Your task to perform on an android device: Go to settings Image 0: 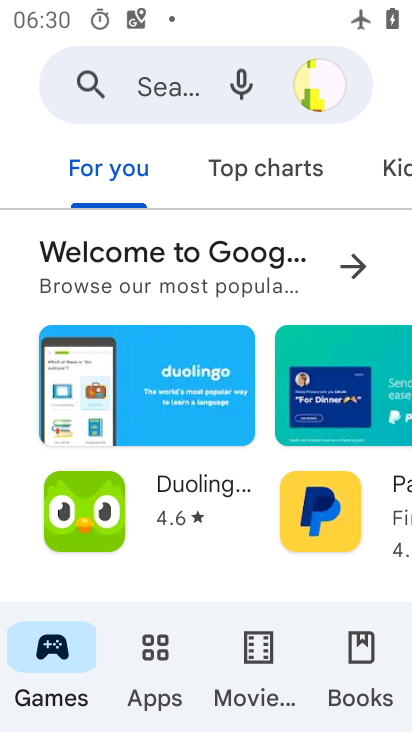
Step 0: press home button
Your task to perform on an android device: Go to settings Image 1: 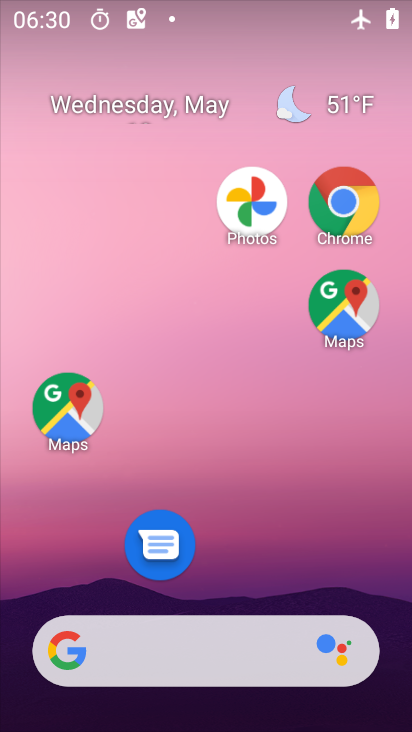
Step 1: drag from (285, 202) to (323, 90)
Your task to perform on an android device: Go to settings Image 2: 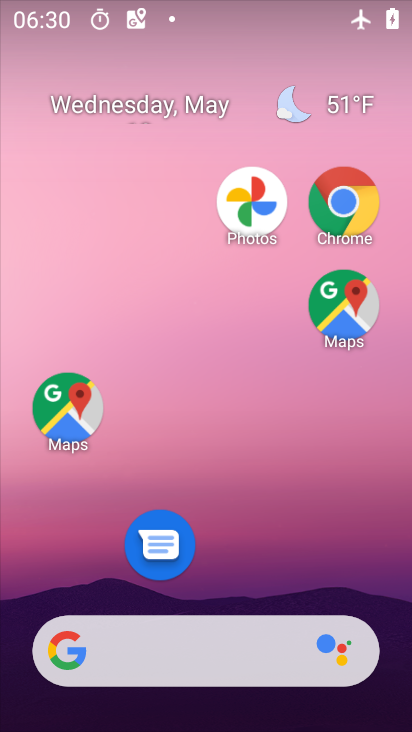
Step 2: drag from (235, 506) to (183, 2)
Your task to perform on an android device: Go to settings Image 3: 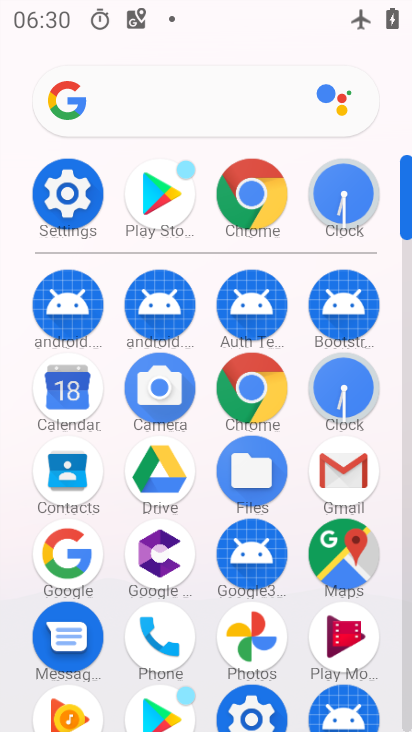
Step 3: click (58, 207)
Your task to perform on an android device: Go to settings Image 4: 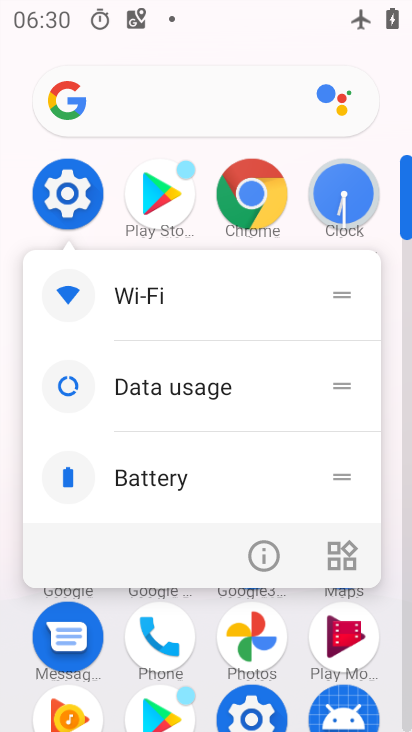
Step 4: click (66, 199)
Your task to perform on an android device: Go to settings Image 5: 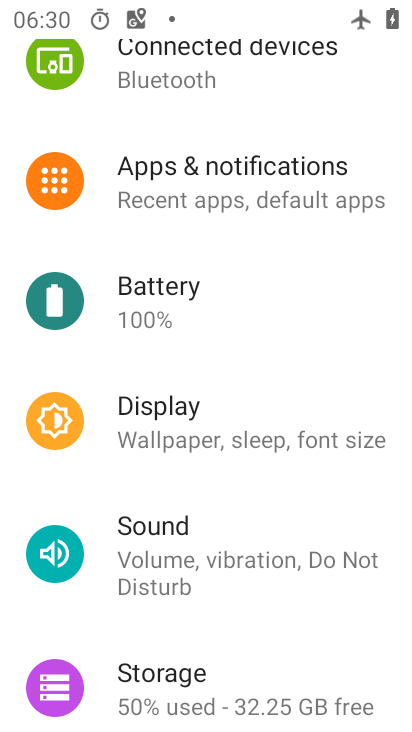
Step 5: task complete